Your task to perform on an android device: Open network settings Image 0: 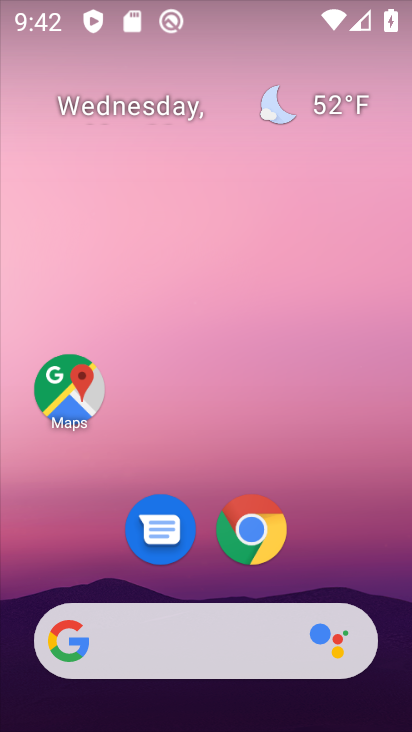
Step 0: drag from (56, 605) to (155, 61)
Your task to perform on an android device: Open network settings Image 1: 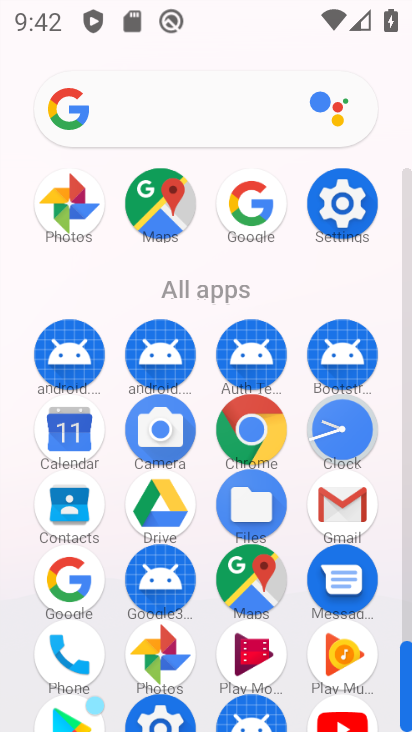
Step 1: drag from (182, 605) to (241, 300)
Your task to perform on an android device: Open network settings Image 2: 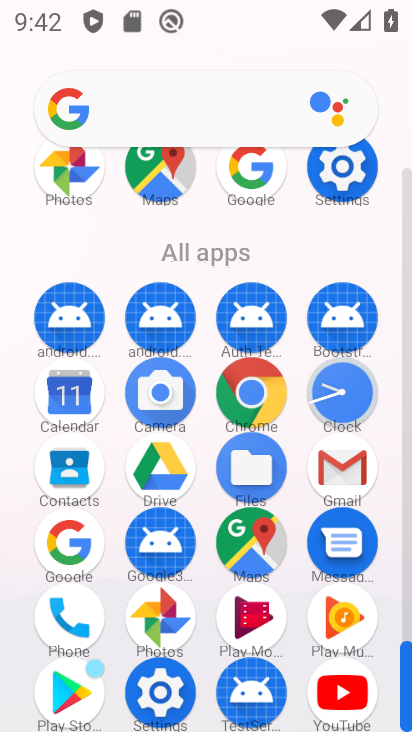
Step 2: click (164, 700)
Your task to perform on an android device: Open network settings Image 3: 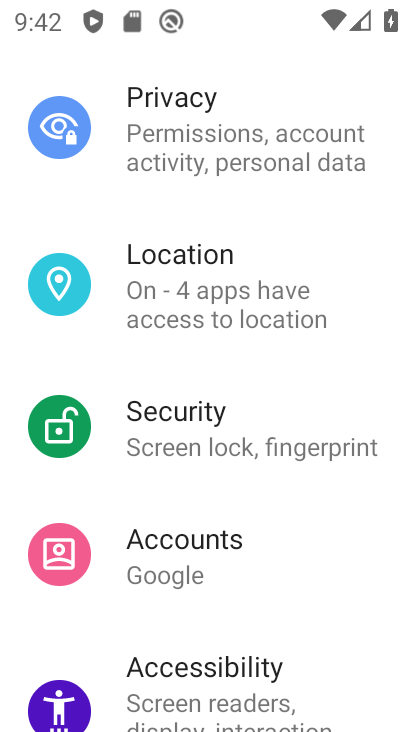
Step 3: drag from (232, 158) to (221, 665)
Your task to perform on an android device: Open network settings Image 4: 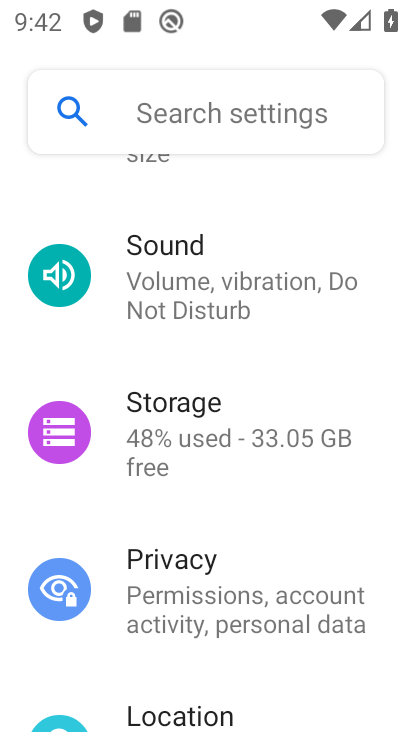
Step 4: drag from (279, 169) to (248, 582)
Your task to perform on an android device: Open network settings Image 5: 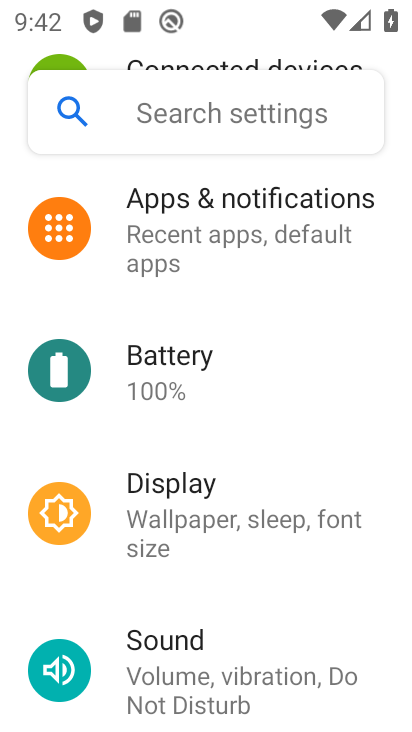
Step 5: drag from (274, 287) to (264, 582)
Your task to perform on an android device: Open network settings Image 6: 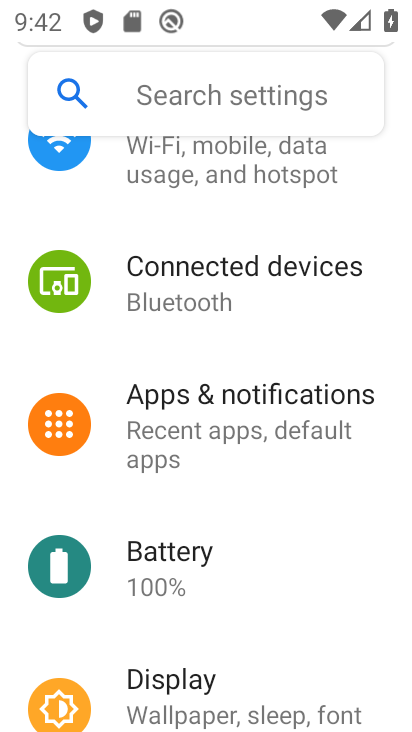
Step 6: click (288, 193)
Your task to perform on an android device: Open network settings Image 7: 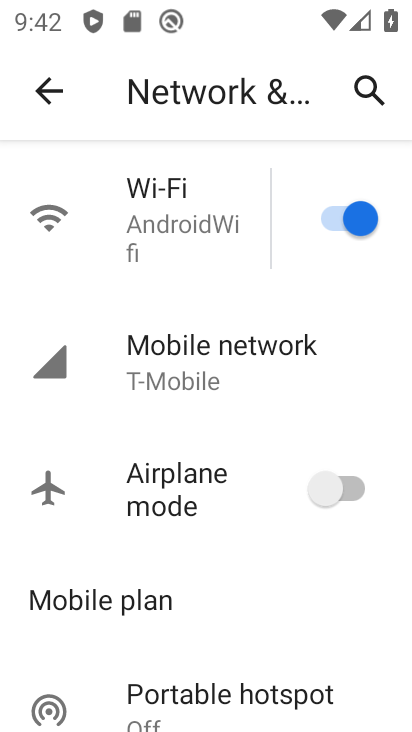
Step 7: click (201, 391)
Your task to perform on an android device: Open network settings Image 8: 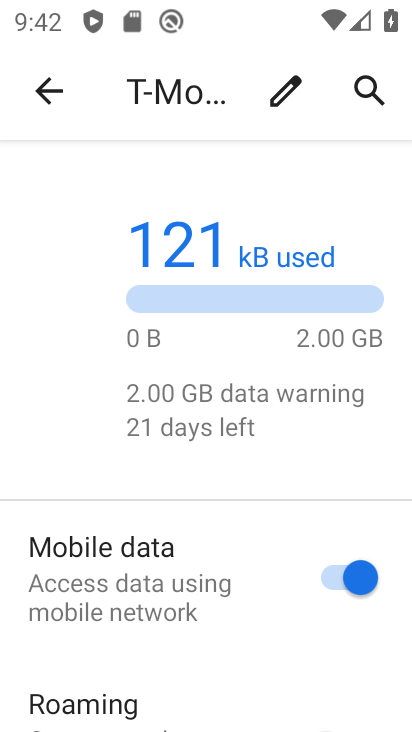
Step 8: task complete